Your task to perform on an android device: Go to Android settings Image 0: 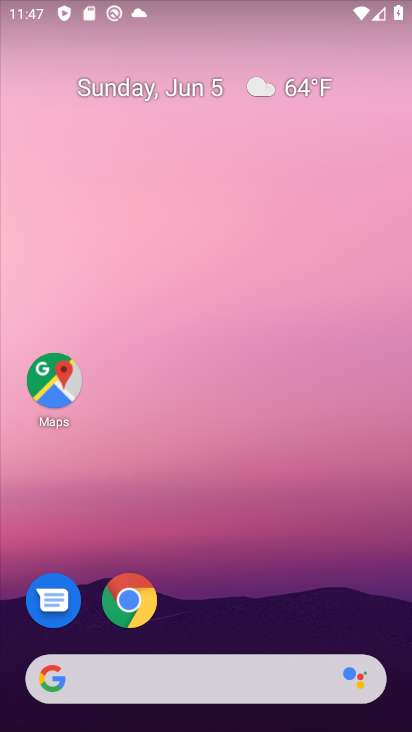
Step 0: drag from (249, 686) to (236, 145)
Your task to perform on an android device: Go to Android settings Image 1: 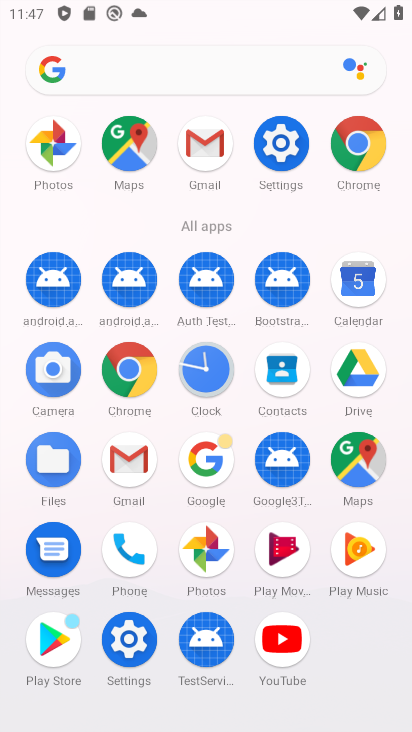
Step 1: click (286, 146)
Your task to perform on an android device: Go to Android settings Image 2: 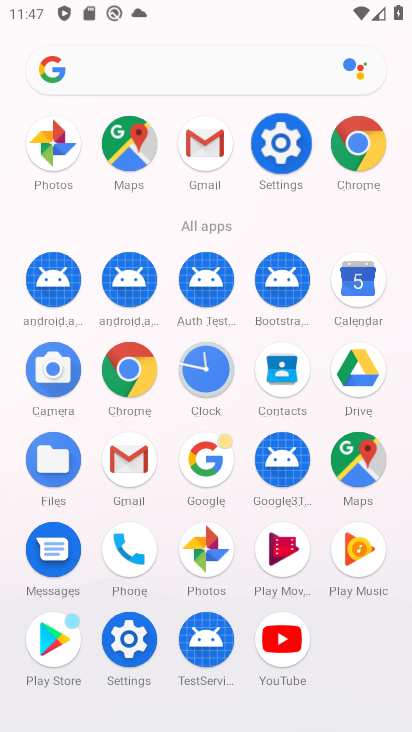
Step 2: click (277, 150)
Your task to perform on an android device: Go to Android settings Image 3: 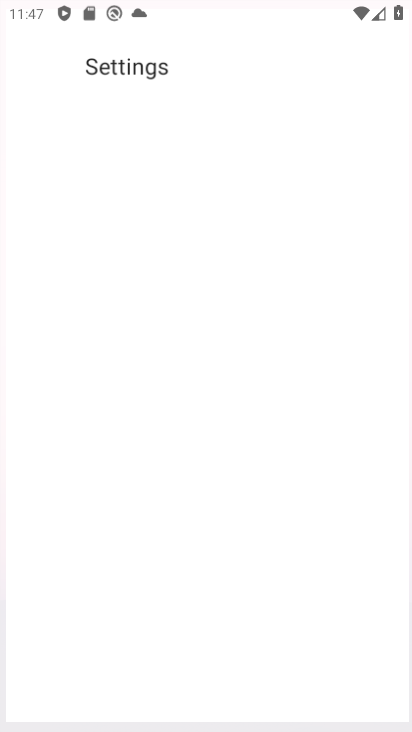
Step 3: click (278, 151)
Your task to perform on an android device: Go to Android settings Image 4: 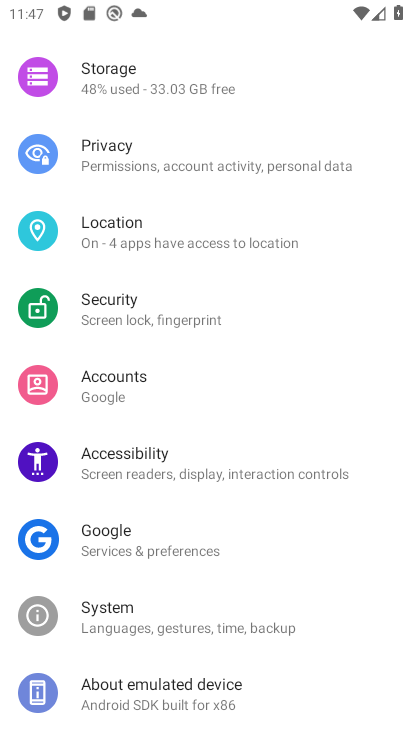
Step 4: drag from (206, 563) to (142, 119)
Your task to perform on an android device: Go to Android settings Image 5: 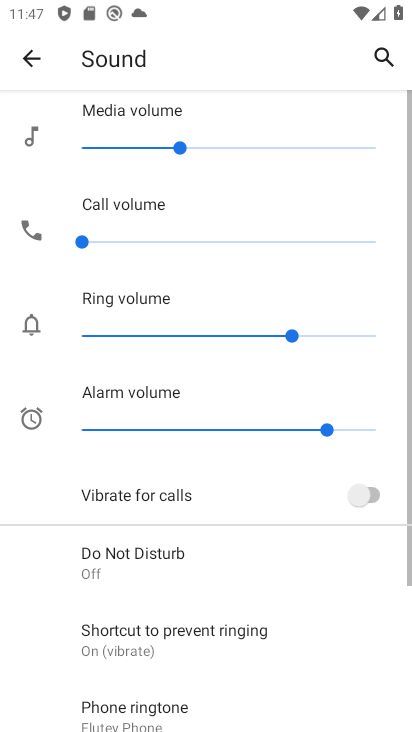
Step 5: click (148, 692)
Your task to perform on an android device: Go to Android settings Image 6: 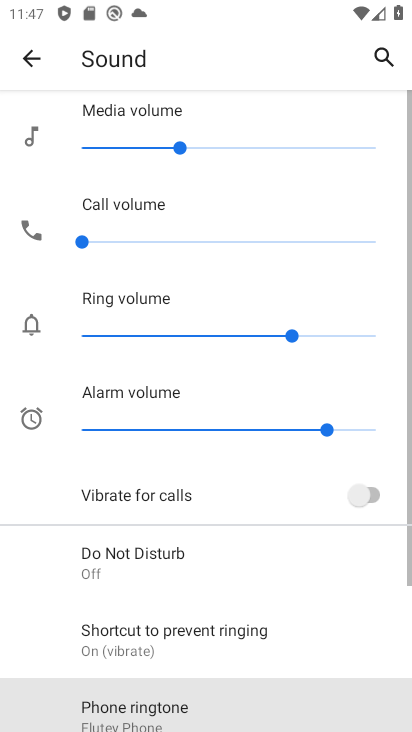
Step 6: click (148, 692)
Your task to perform on an android device: Go to Android settings Image 7: 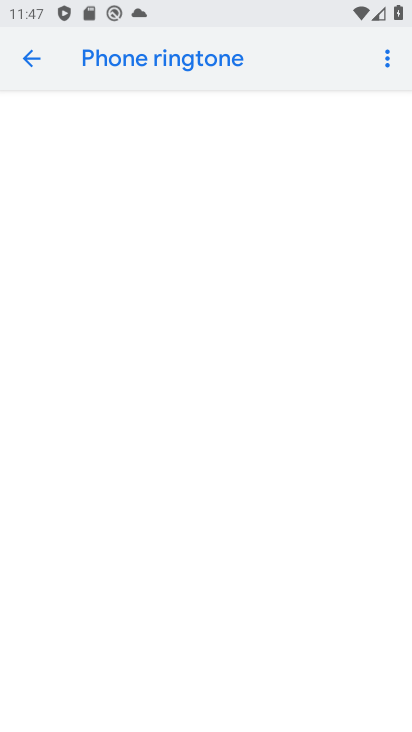
Step 7: click (35, 54)
Your task to perform on an android device: Go to Android settings Image 8: 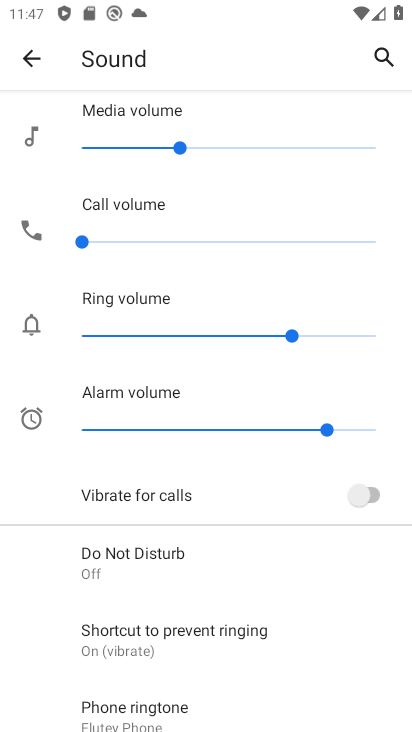
Step 8: task complete